Your task to perform on an android device: When is my next meeting? Image 0: 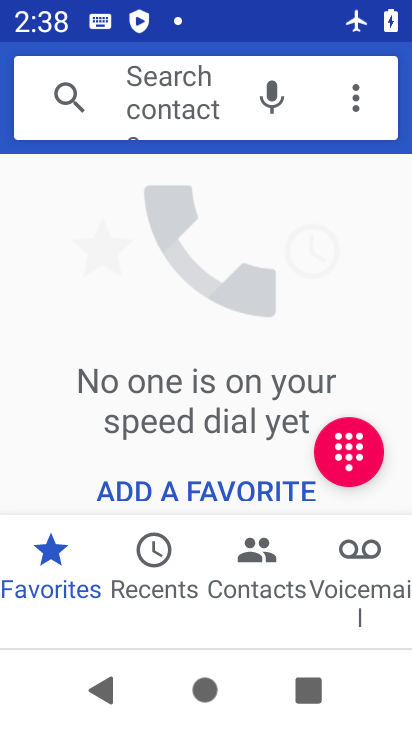
Step 0: press home button
Your task to perform on an android device: When is my next meeting? Image 1: 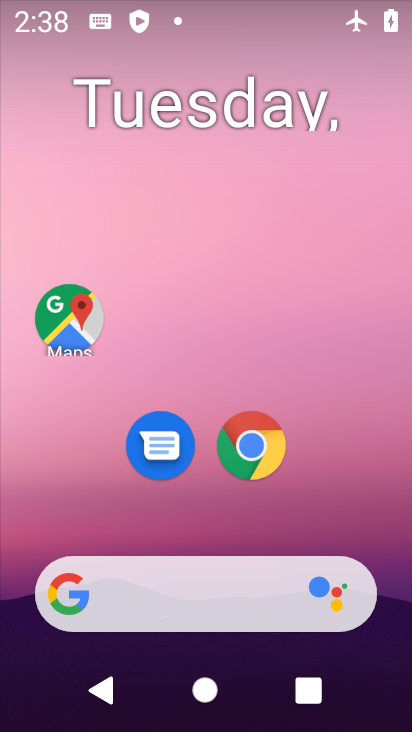
Step 1: drag from (344, 500) to (218, 182)
Your task to perform on an android device: When is my next meeting? Image 2: 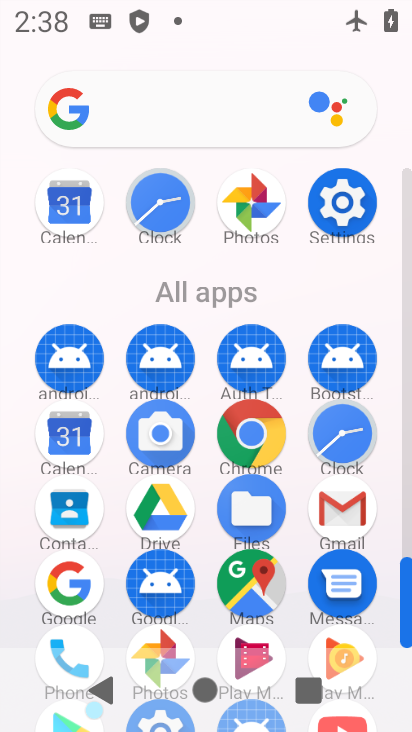
Step 2: click (78, 224)
Your task to perform on an android device: When is my next meeting? Image 3: 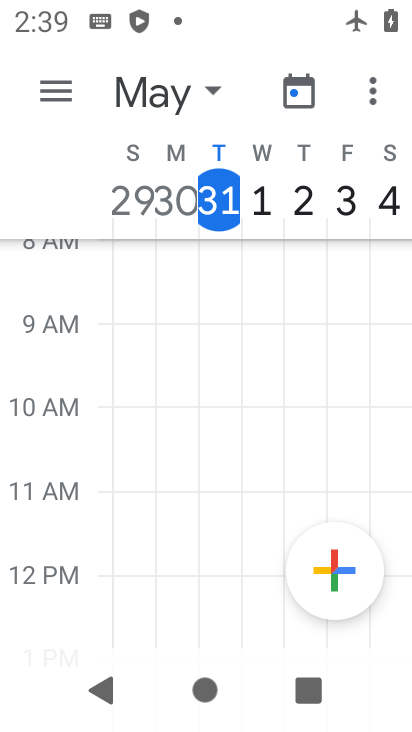
Step 3: click (64, 88)
Your task to perform on an android device: When is my next meeting? Image 4: 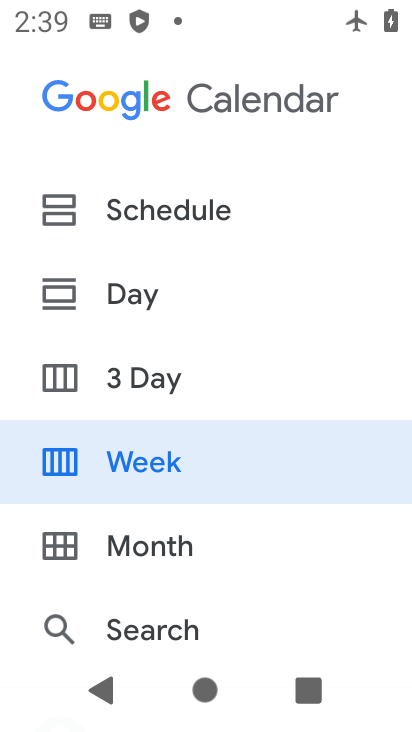
Step 4: click (118, 212)
Your task to perform on an android device: When is my next meeting? Image 5: 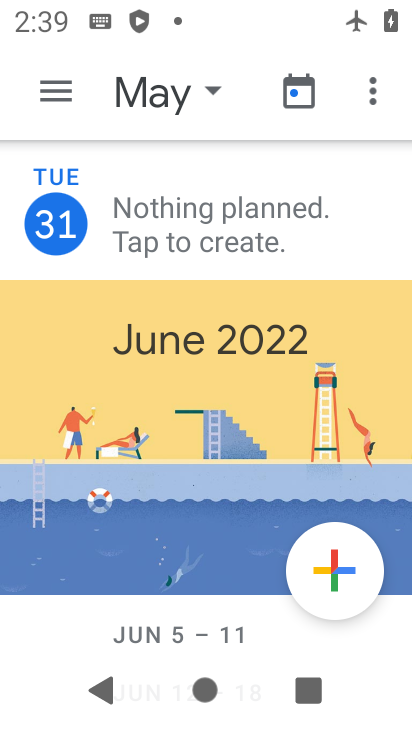
Step 5: click (158, 538)
Your task to perform on an android device: When is my next meeting? Image 6: 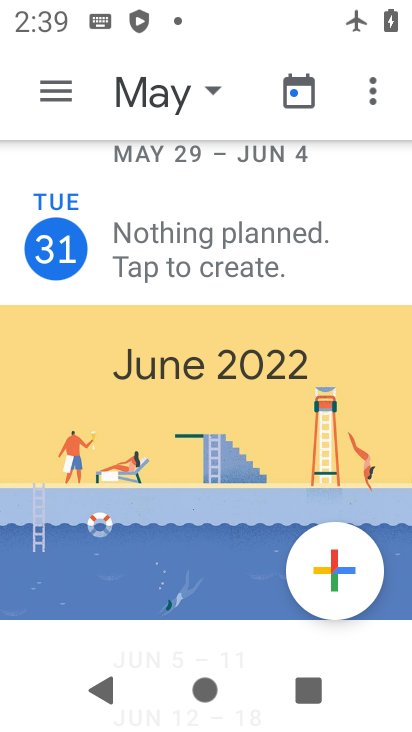
Step 6: task complete